Your task to perform on an android device: Go to notification settings Image 0: 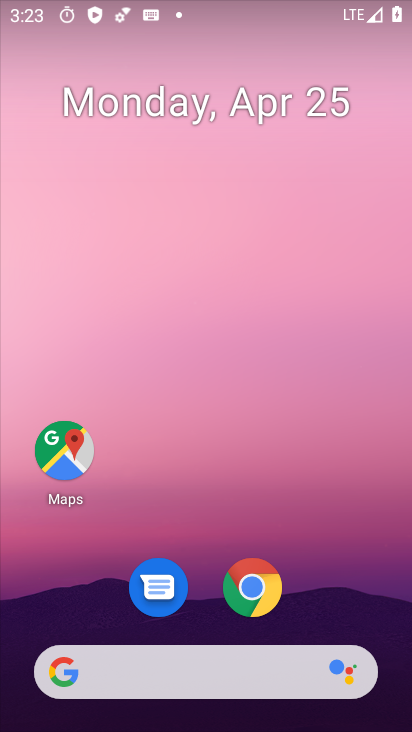
Step 0: click (340, 142)
Your task to perform on an android device: Go to notification settings Image 1: 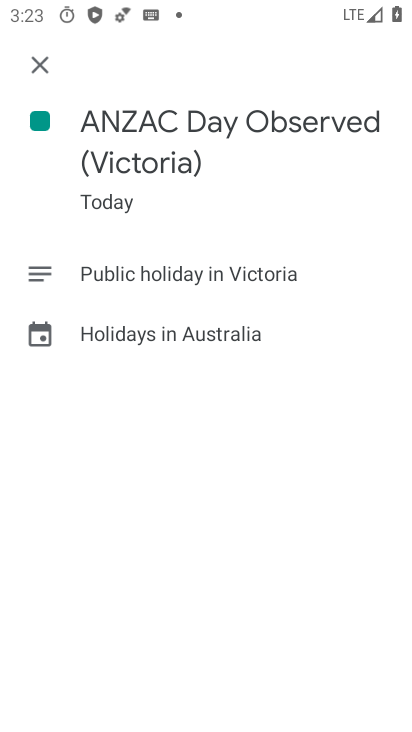
Step 1: press home button
Your task to perform on an android device: Go to notification settings Image 2: 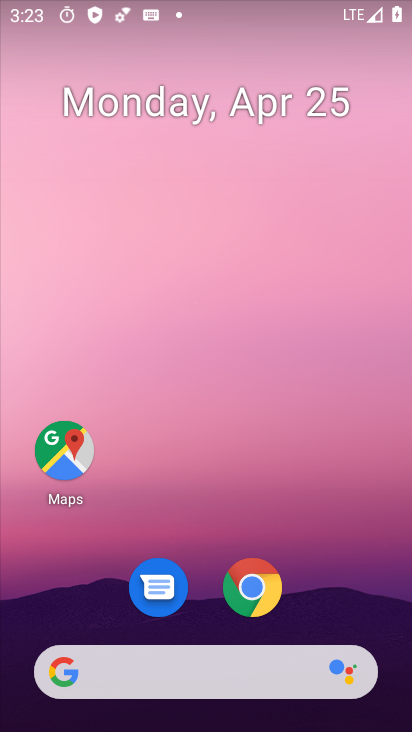
Step 2: drag from (382, 465) to (369, 139)
Your task to perform on an android device: Go to notification settings Image 3: 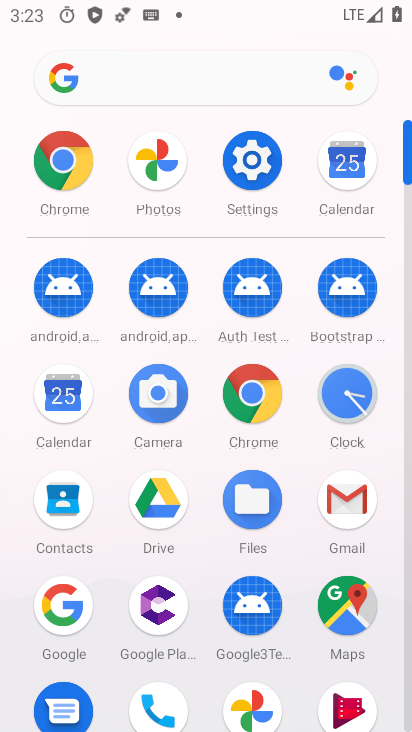
Step 3: click (268, 168)
Your task to perform on an android device: Go to notification settings Image 4: 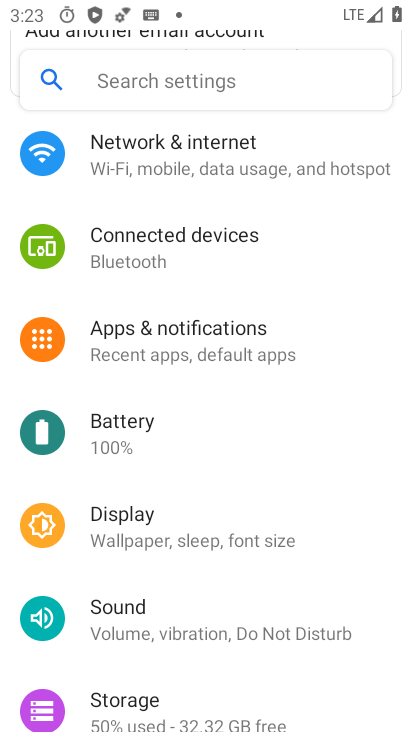
Step 4: click (210, 330)
Your task to perform on an android device: Go to notification settings Image 5: 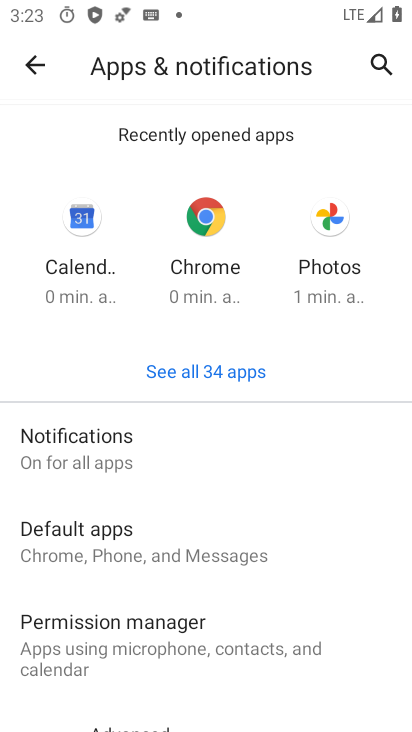
Step 5: click (96, 455)
Your task to perform on an android device: Go to notification settings Image 6: 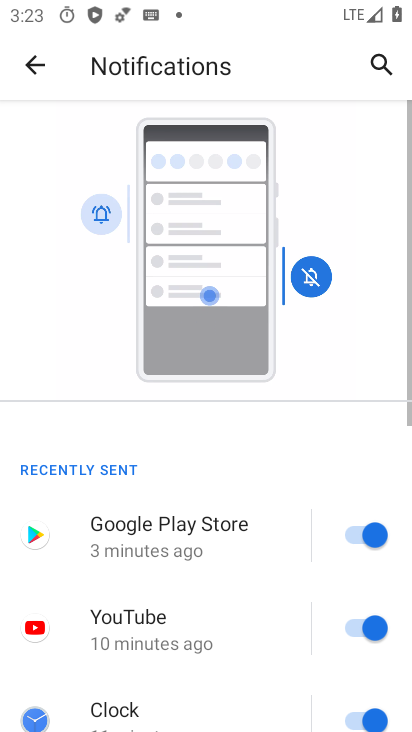
Step 6: task complete